Your task to perform on an android device: Set the phone to "Do not disturb". Image 0: 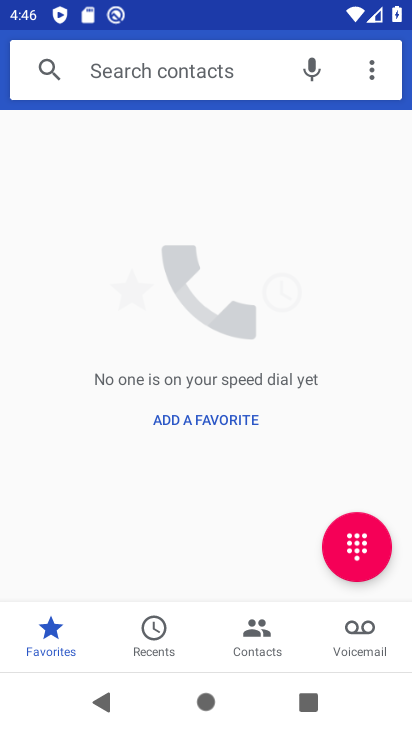
Step 0: drag from (168, 21) to (169, 603)
Your task to perform on an android device: Set the phone to "Do not disturb". Image 1: 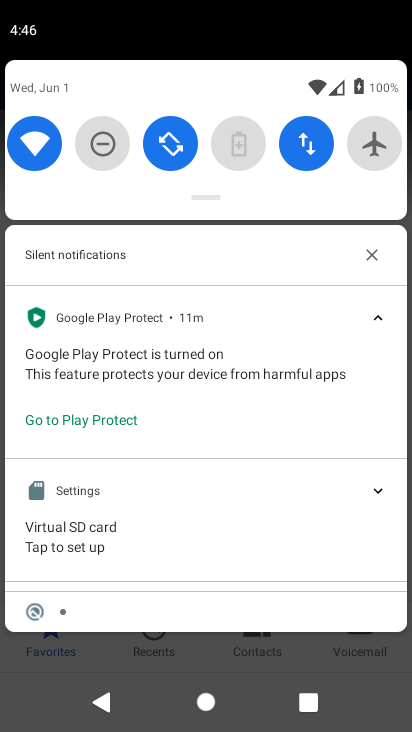
Step 1: click (101, 136)
Your task to perform on an android device: Set the phone to "Do not disturb". Image 2: 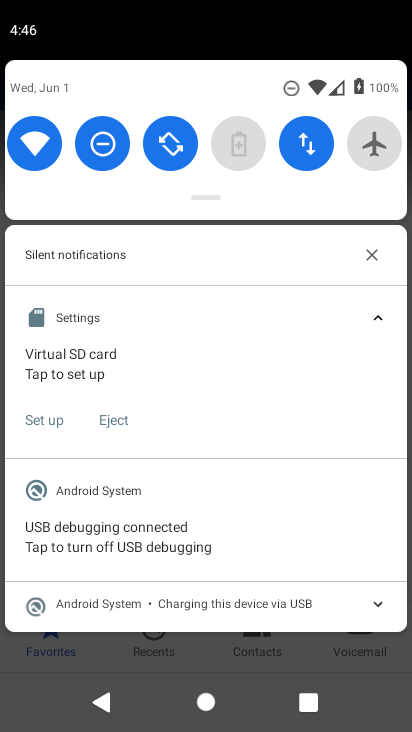
Step 2: task complete